Your task to perform on an android device: open the mobile data screen to see how much data has been used Image 0: 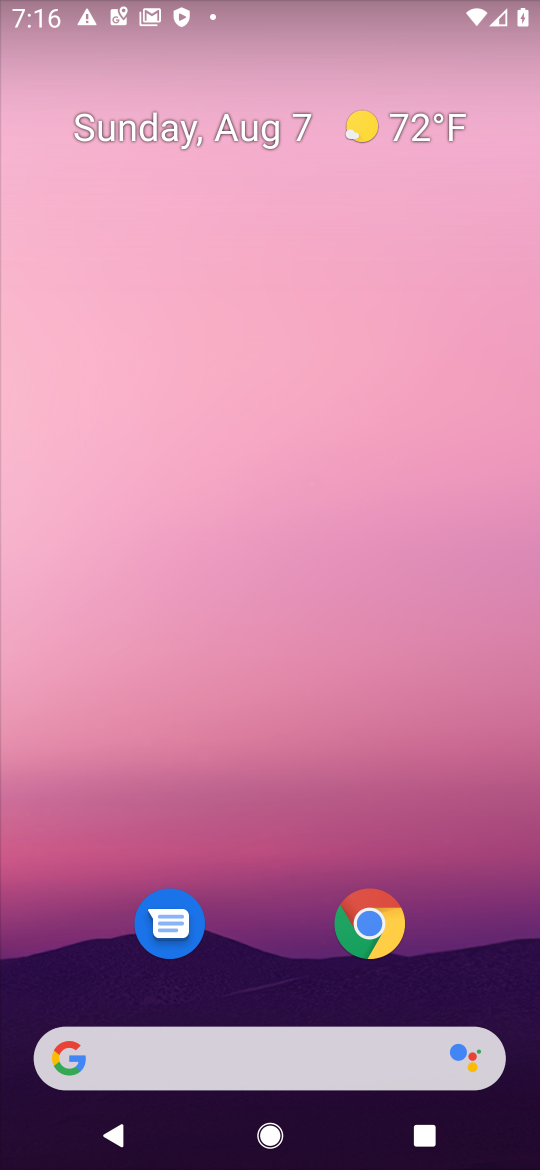
Step 0: drag from (463, 959) to (233, 69)
Your task to perform on an android device: open the mobile data screen to see how much data has been used Image 1: 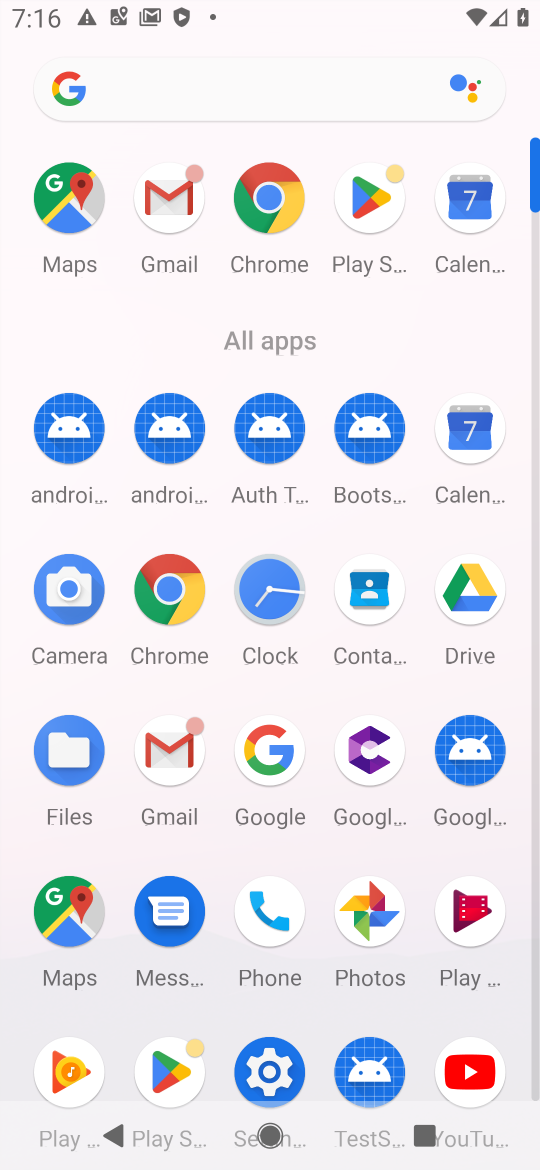
Step 1: click (284, 1053)
Your task to perform on an android device: open the mobile data screen to see how much data has been used Image 2: 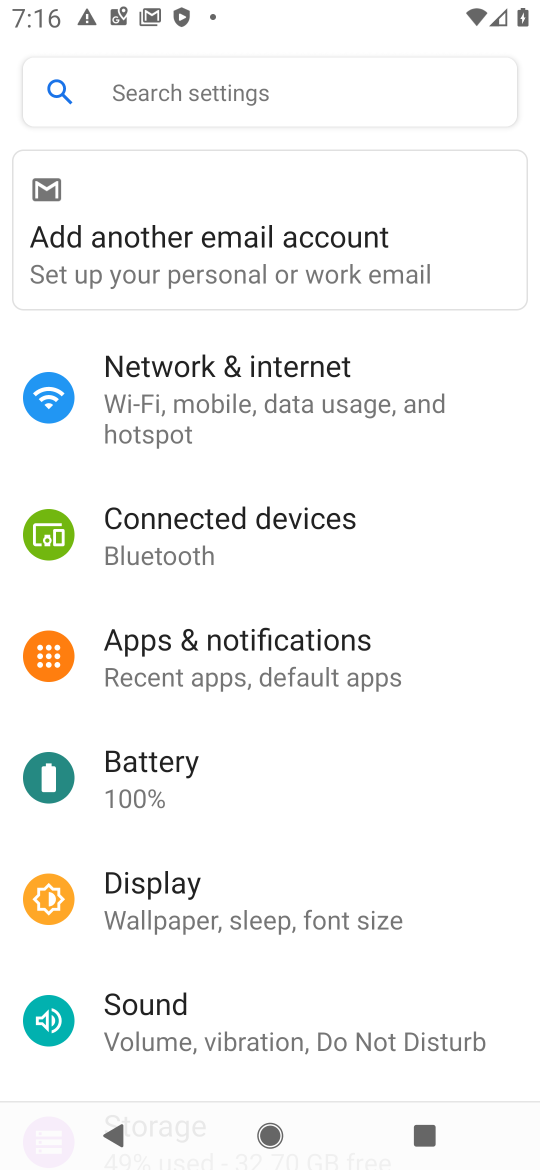
Step 2: click (175, 383)
Your task to perform on an android device: open the mobile data screen to see how much data has been used Image 3: 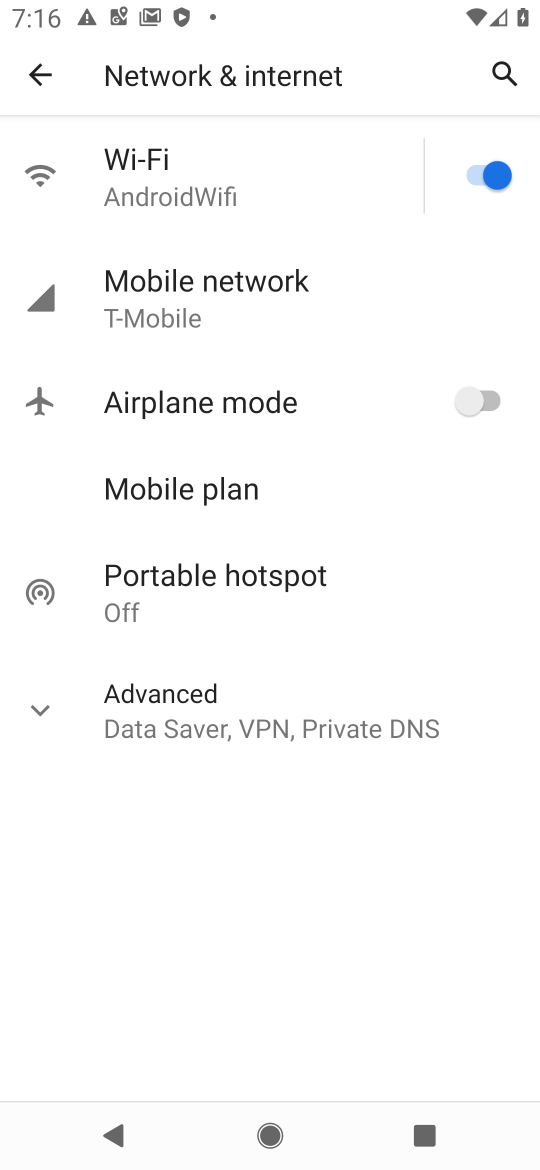
Step 3: click (229, 289)
Your task to perform on an android device: open the mobile data screen to see how much data has been used Image 4: 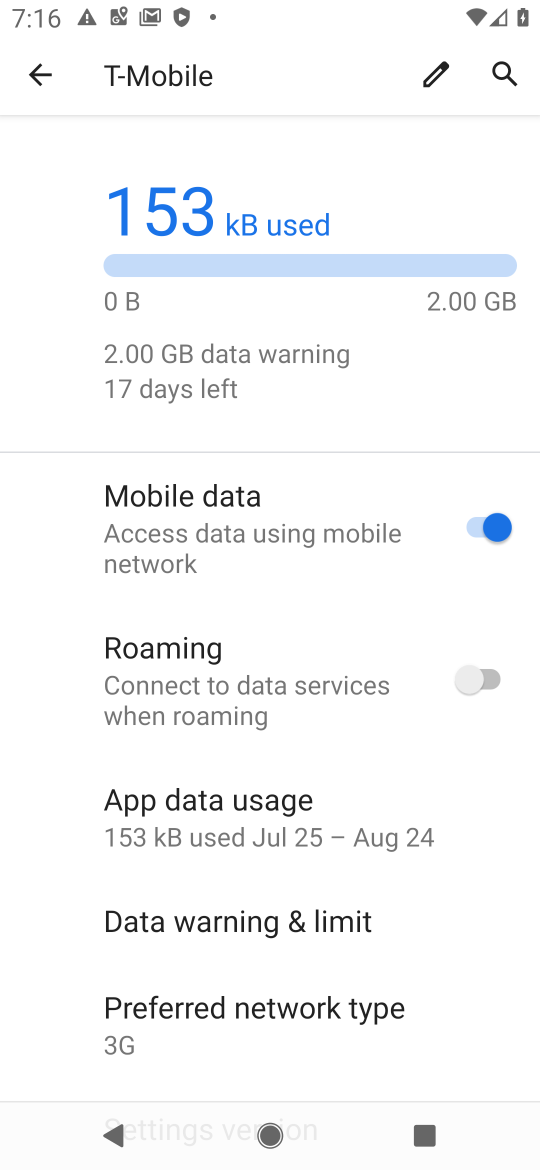
Step 4: click (182, 814)
Your task to perform on an android device: open the mobile data screen to see how much data has been used Image 5: 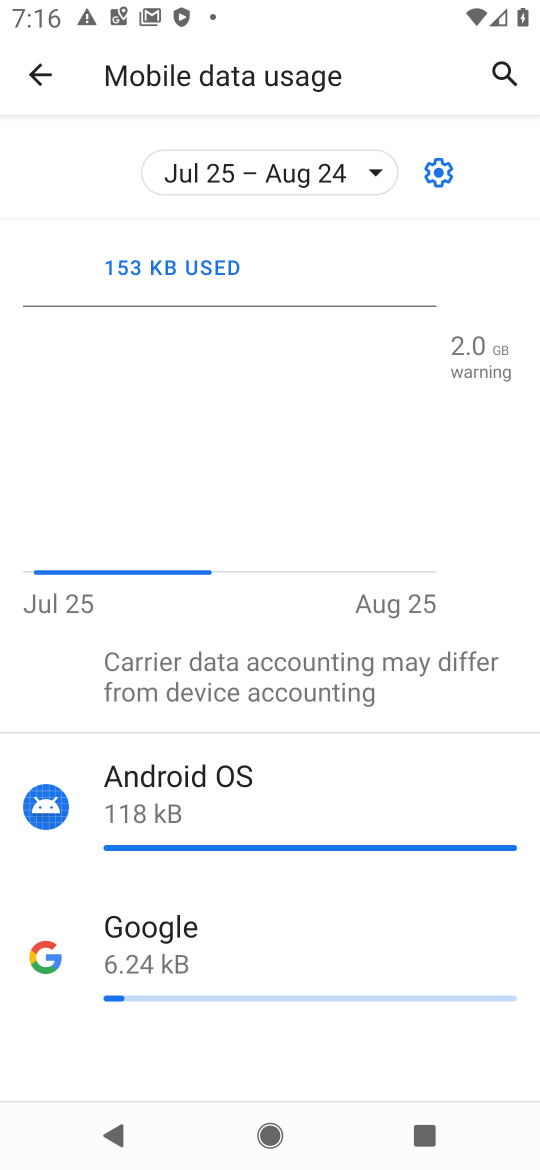
Step 5: task complete